Your task to perform on an android device: delete the emails in spam in the gmail app Image 0: 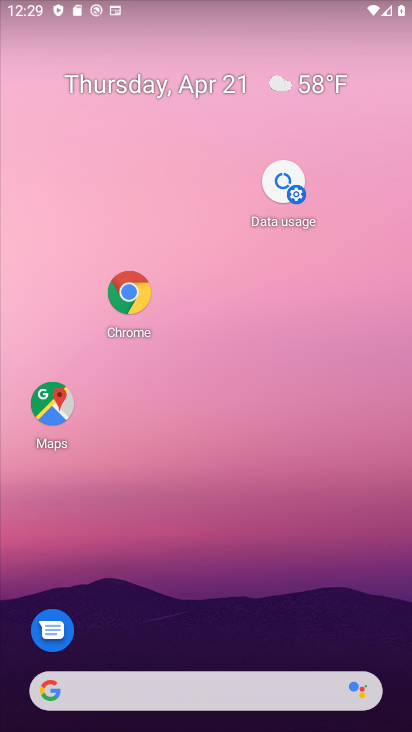
Step 0: drag from (214, 673) to (208, 375)
Your task to perform on an android device: delete the emails in spam in the gmail app Image 1: 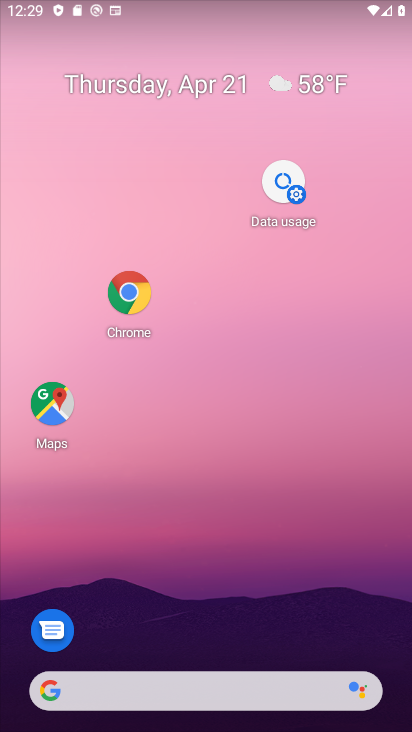
Step 1: drag from (207, 669) to (201, 203)
Your task to perform on an android device: delete the emails in spam in the gmail app Image 2: 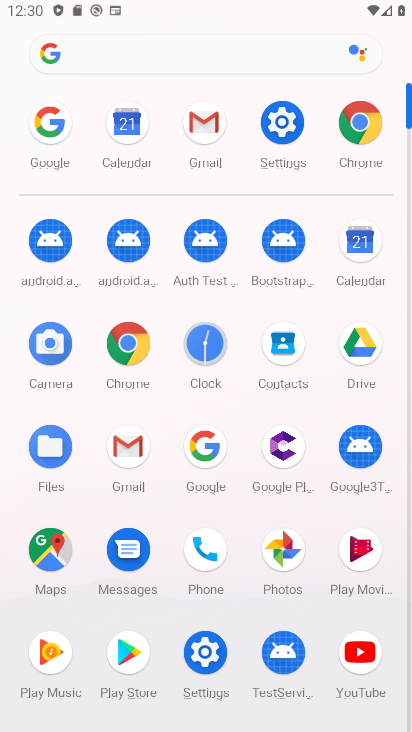
Step 2: click (118, 441)
Your task to perform on an android device: delete the emails in spam in the gmail app Image 3: 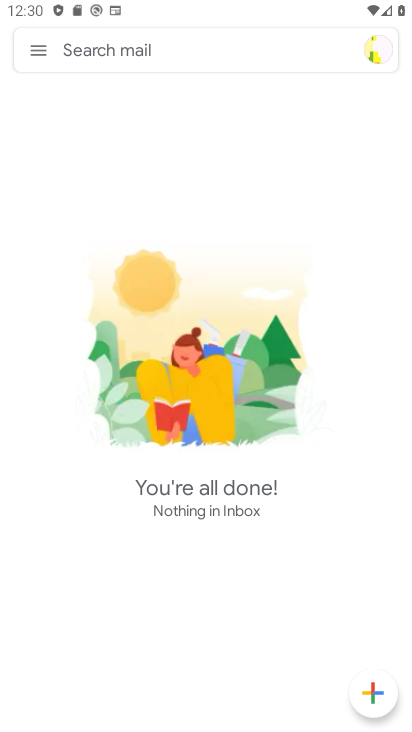
Step 3: click (43, 55)
Your task to perform on an android device: delete the emails in spam in the gmail app Image 4: 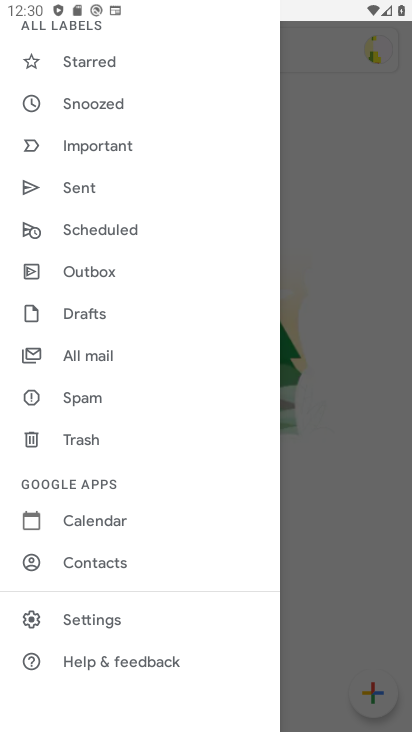
Step 4: click (75, 396)
Your task to perform on an android device: delete the emails in spam in the gmail app Image 5: 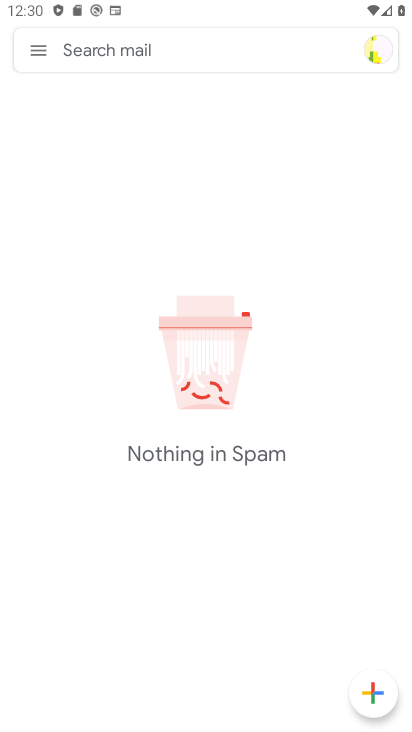
Step 5: task complete